Your task to perform on an android device: Go to settings Image 0: 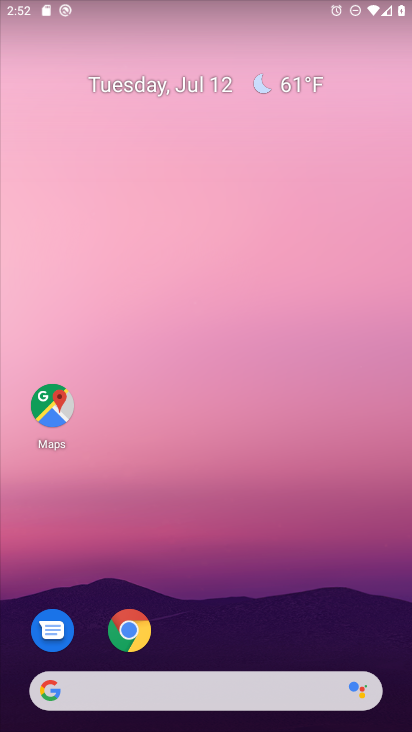
Step 0: drag from (189, 613) to (189, 187)
Your task to perform on an android device: Go to settings Image 1: 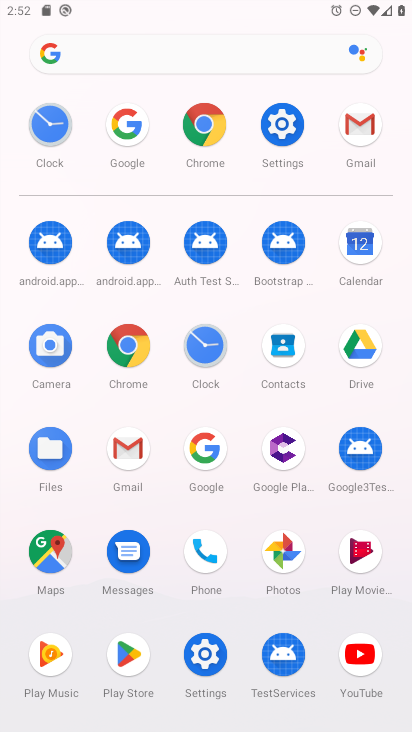
Step 1: click (279, 145)
Your task to perform on an android device: Go to settings Image 2: 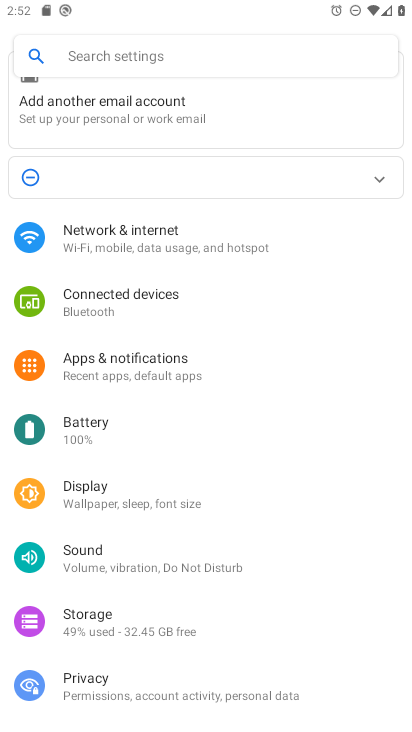
Step 2: task complete